Your task to perform on an android device: Open wifi settings Image 0: 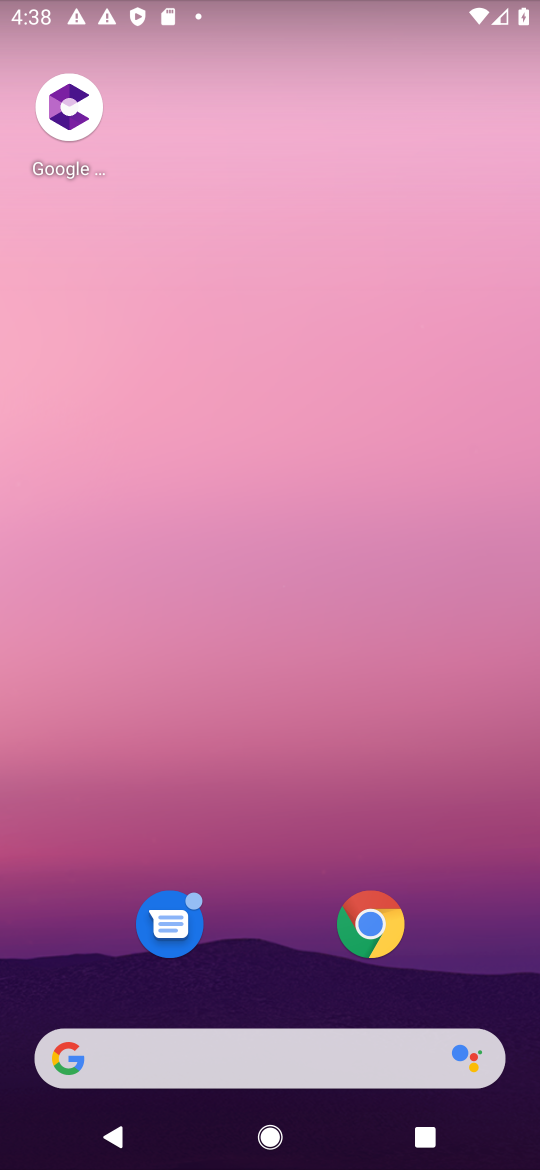
Step 0: drag from (253, 686) to (282, 479)
Your task to perform on an android device: Open wifi settings Image 1: 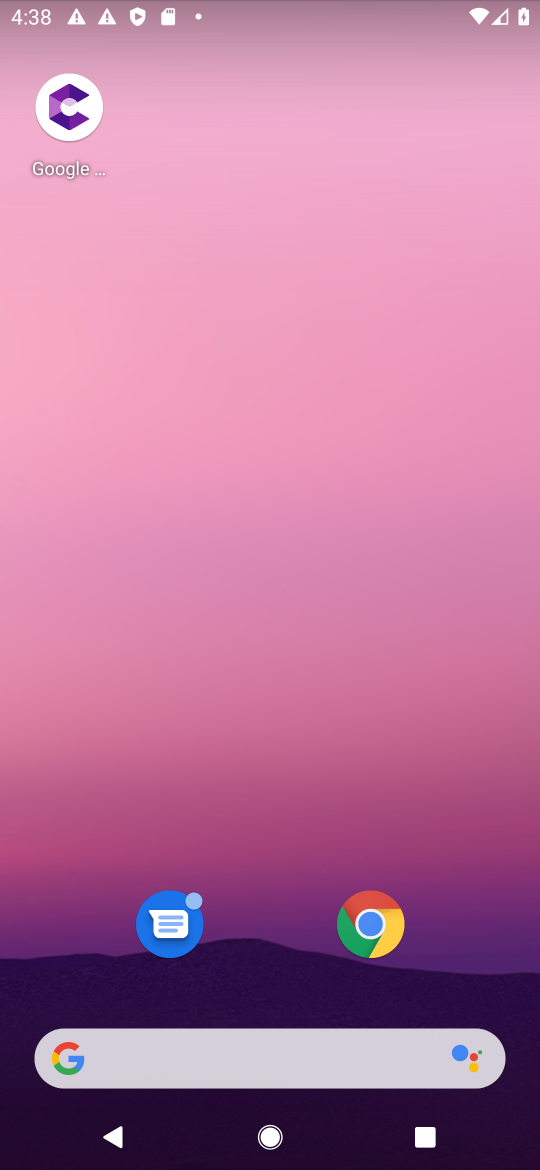
Step 1: drag from (227, 833) to (290, 96)
Your task to perform on an android device: Open wifi settings Image 2: 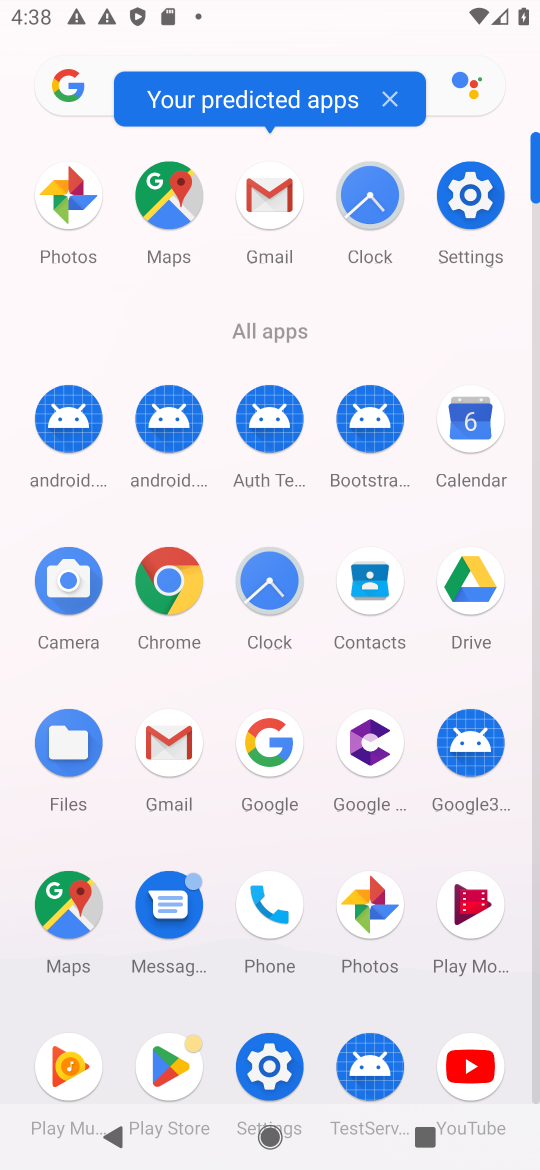
Step 2: click (482, 191)
Your task to perform on an android device: Open wifi settings Image 3: 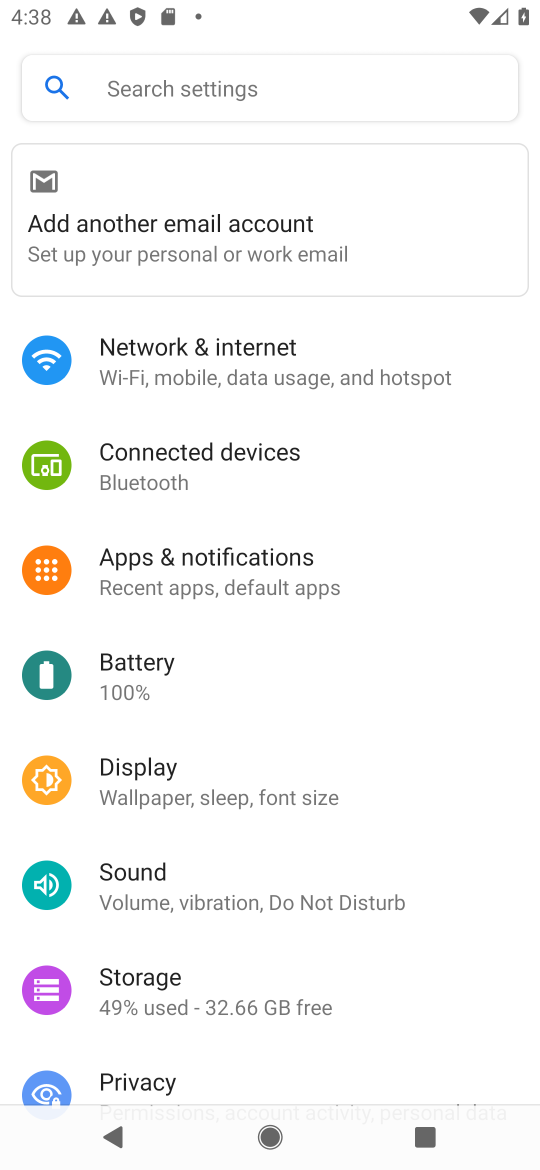
Step 3: click (346, 330)
Your task to perform on an android device: Open wifi settings Image 4: 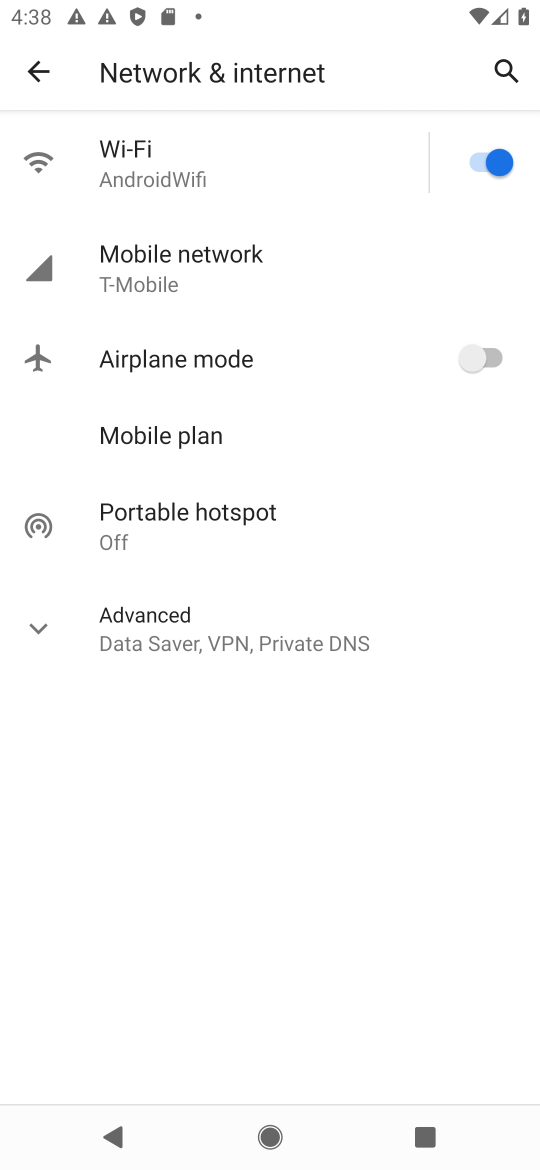
Step 4: click (194, 128)
Your task to perform on an android device: Open wifi settings Image 5: 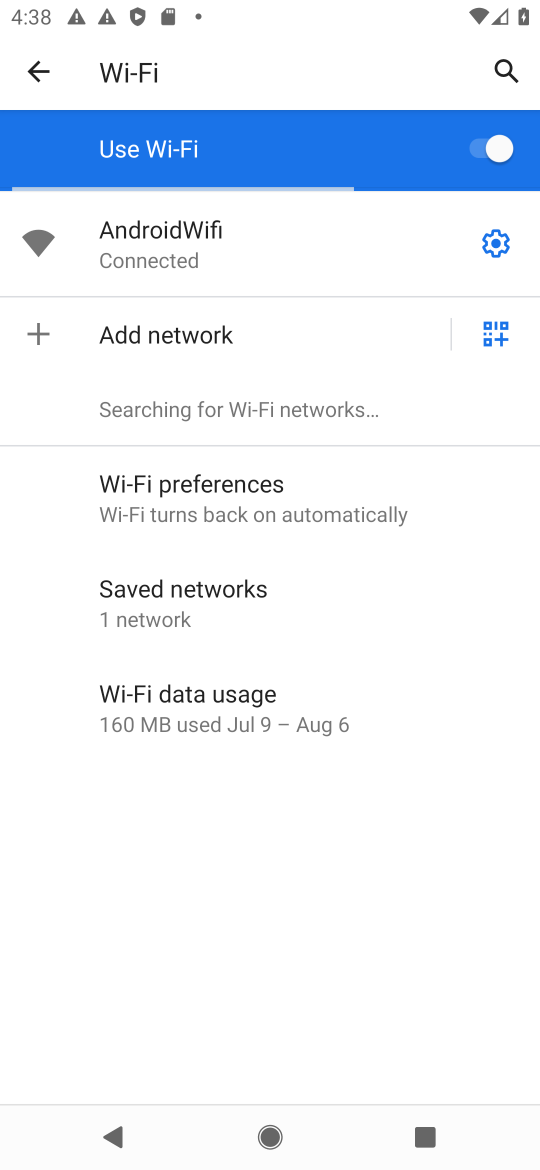
Step 5: click (487, 242)
Your task to perform on an android device: Open wifi settings Image 6: 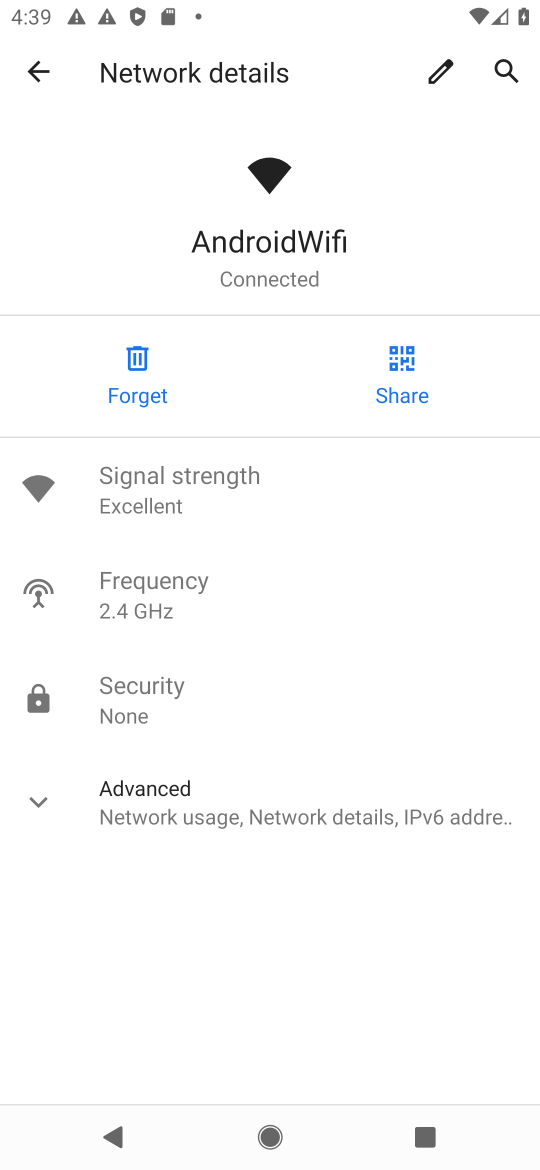
Step 6: task complete